Your task to perform on an android device: Find coffee shops on Maps Image 0: 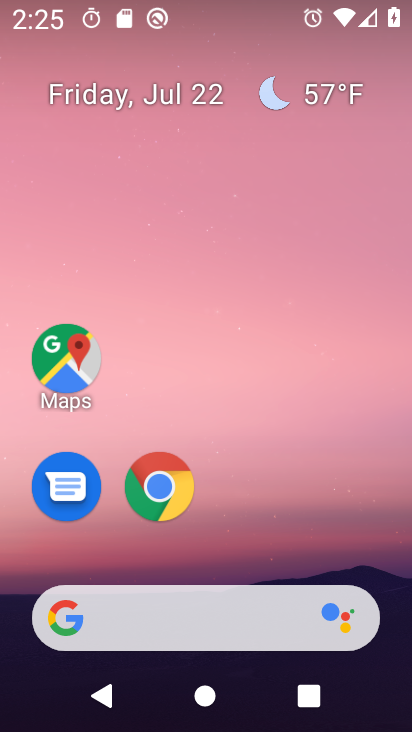
Step 0: press home button
Your task to perform on an android device: Find coffee shops on Maps Image 1: 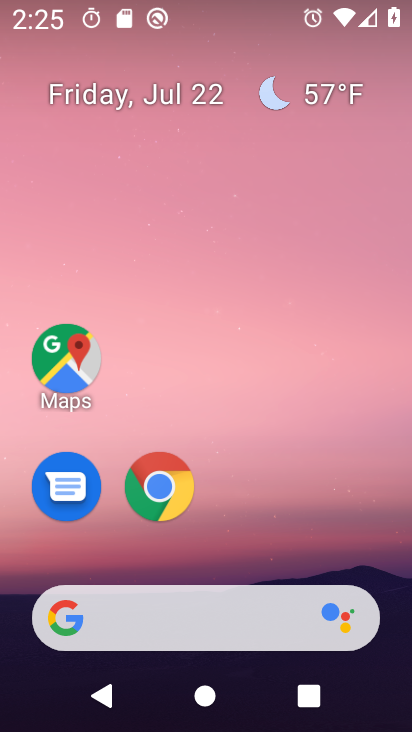
Step 1: drag from (367, 531) to (355, 108)
Your task to perform on an android device: Find coffee shops on Maps Image 2: 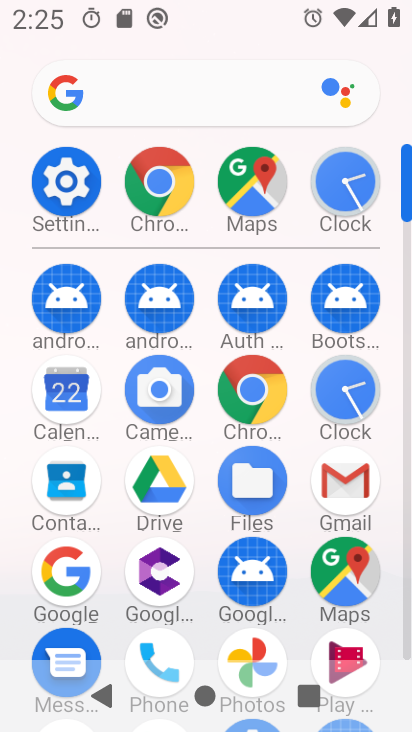
Step 2: click (352, 579)
Your task to perform on an android device: Find coffee shops on Maps Image 3: 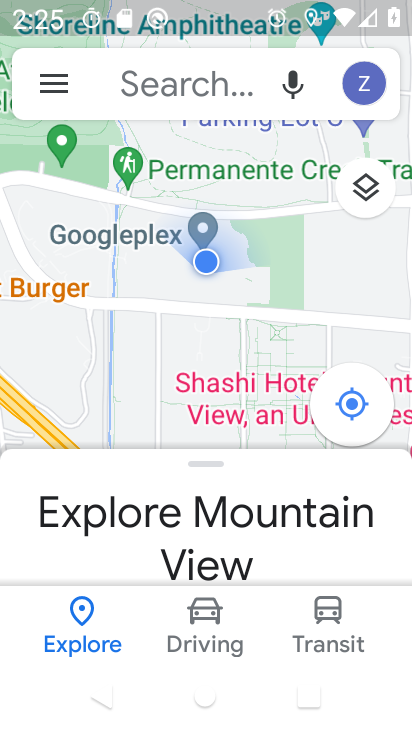
Step 3: click (226, 99)
Your task to perform on an android device: Find coffee shops on Maps Image 4: 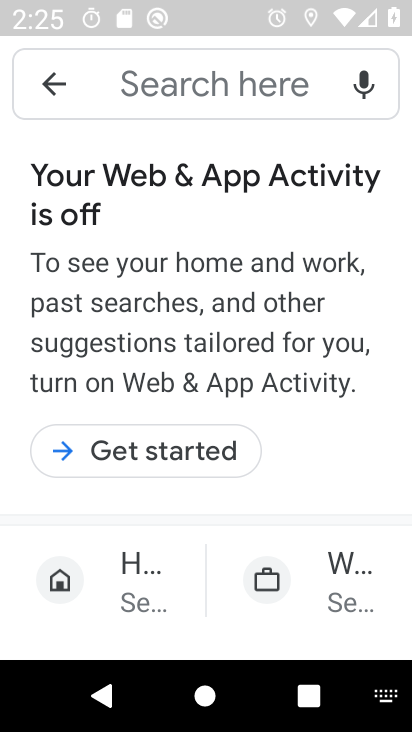
Step 4: type "coffee"
Your task to perform on an android device: Find coffee shops on Maps Image 5: 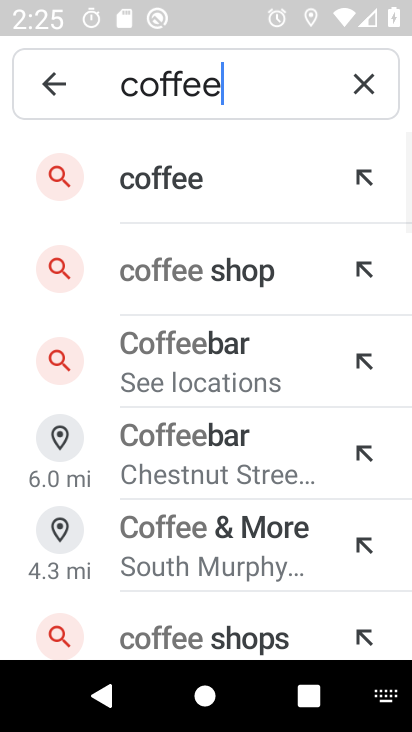
Step 5: click (316, 191)
Your task to perform on an android device: Find coffee shops on Maps Image 6: 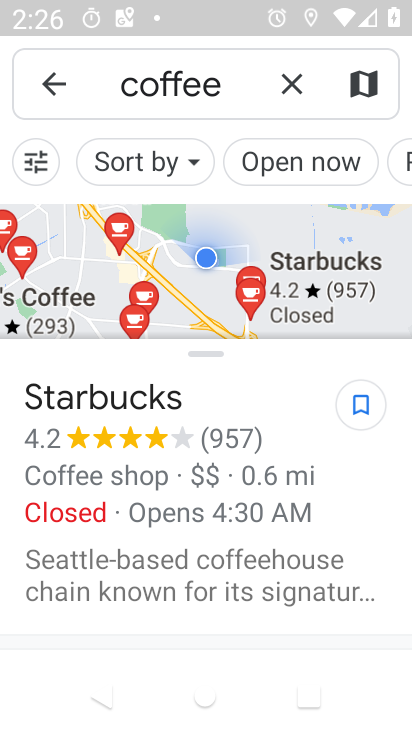
Step 6: task complete